Your task to perform on an android device: Is it going to rain today? Image 0: 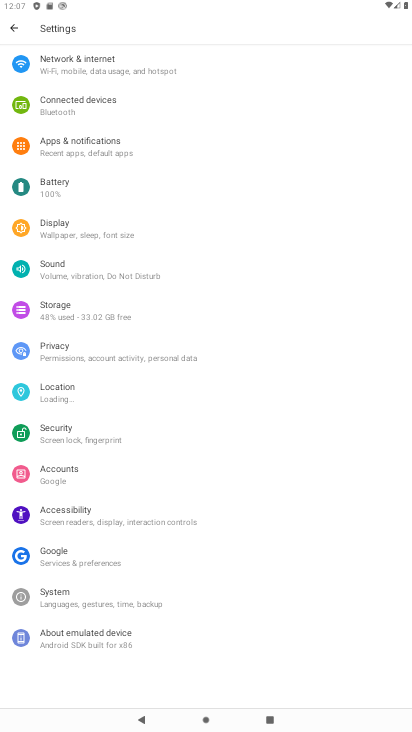
Step 0: press home button
Your task to perform on an android device: Is it going to rain today? Image 1: 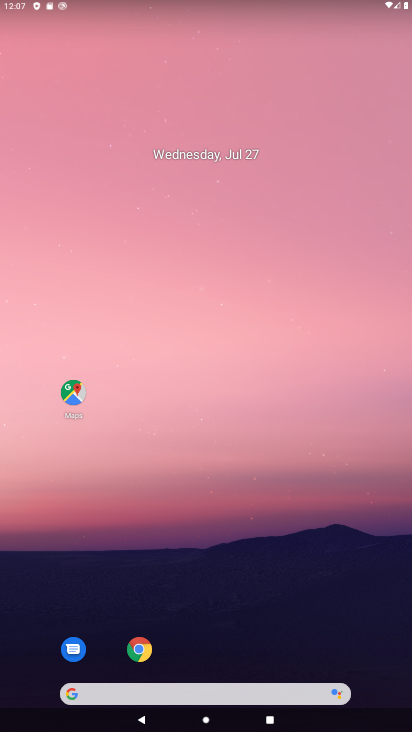
Step 1: click (173, 687)
Your task to perform on an android device: Is it going to rain today? Image 2: 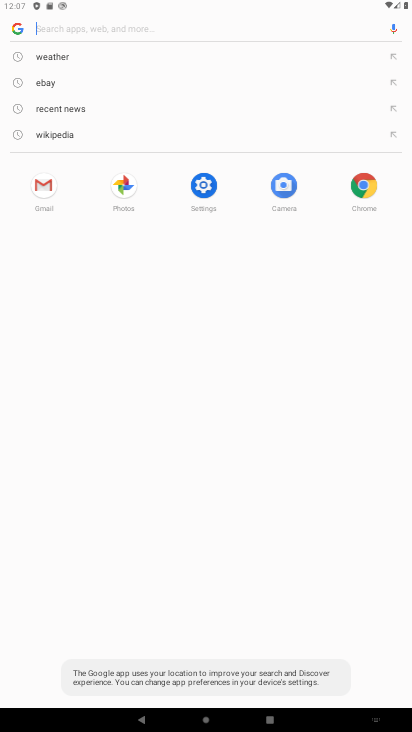
Step 2: click (48, 55)
Your task to perform on an android device: Is it going to rain today? Image 3: 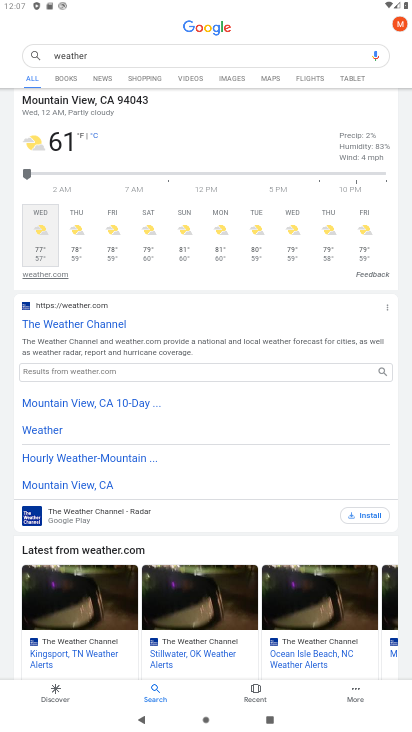
Step 3: task complete